Your task to perform on an android device: turn off improve location accuracy Image 0: 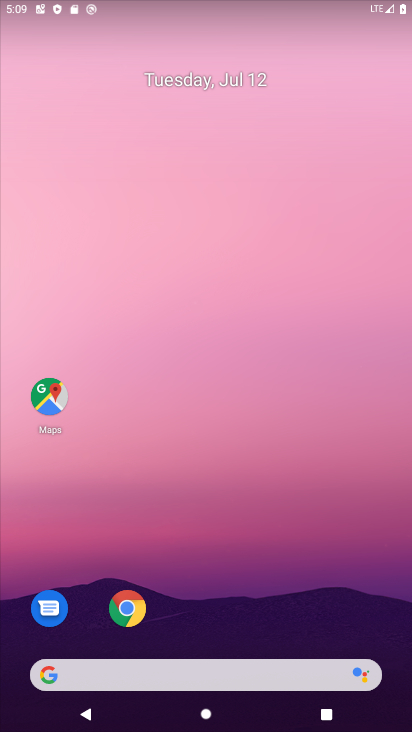
Step 0: drag from (199, 11) to (272, 597)
Your task to perform on an android device: turn off improve location accuracy Image 1: 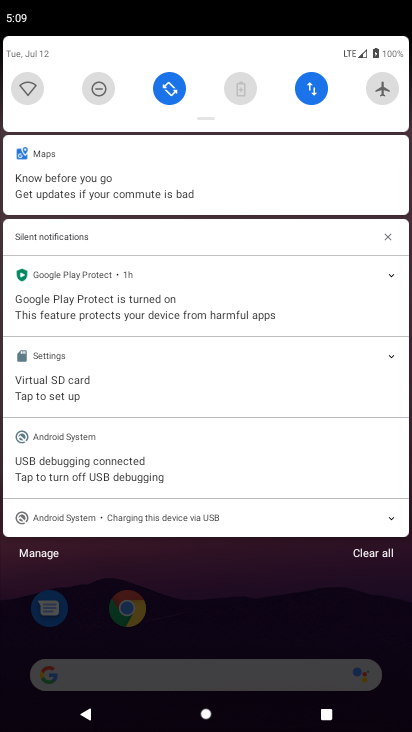
Step 1: drag from (188, 77) to (223, 699)
Your task to perform on an android device: turn off improve location accuracy Image 2: 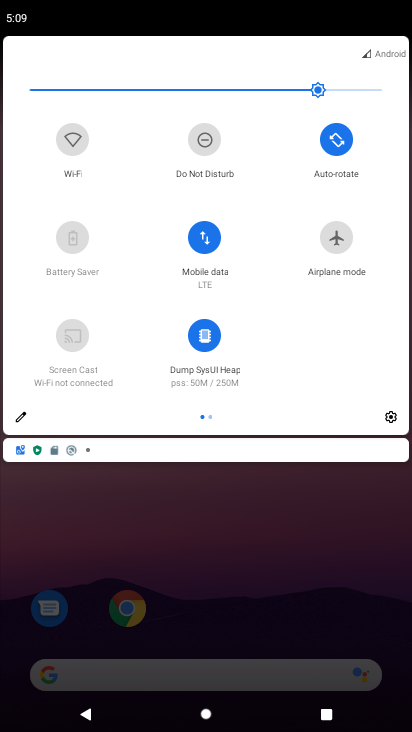
Step 2: click (392, 411)
Your task to perform on an android device: turn off improve location accuracy Image 3: 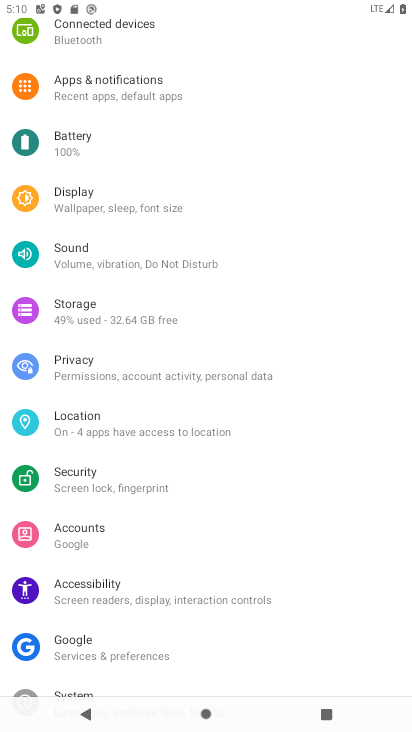
Step 3: click (59, 417)
Your task to perform on an android device: turn off improve location accuracy Image 4: 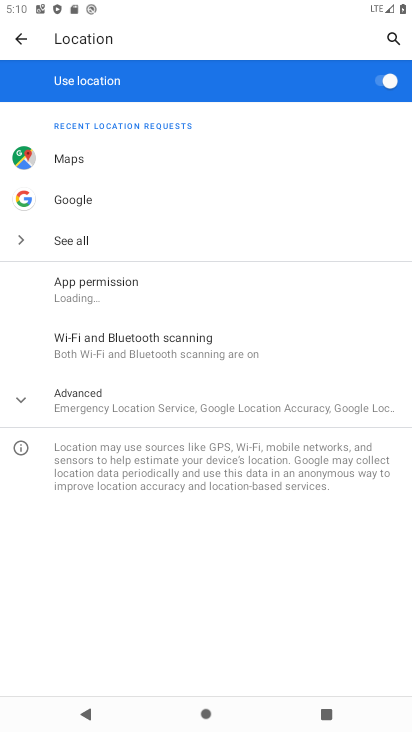
Step 4: click (88, 415)
Your task to perform on an android device: turn off improve location accuracy Image 5: 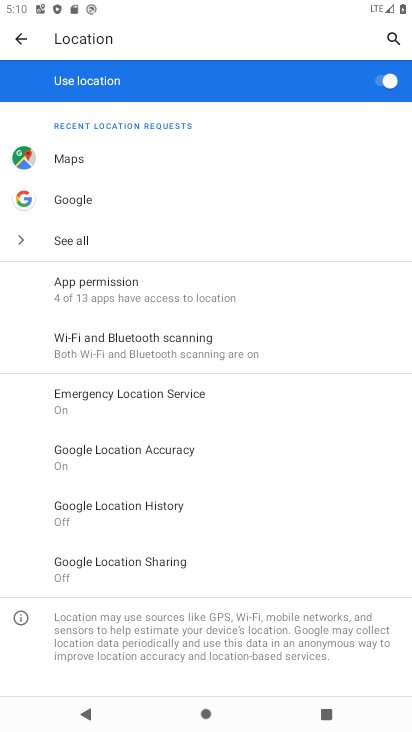
Step 5: click (164, 456)
Your task to perform on an android device: turn off improve location accuracy Image 6: 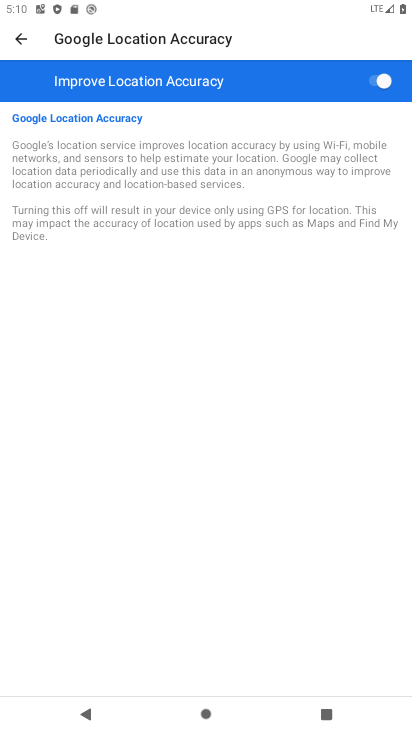
Step 6: click (371, 84)
Your task to perform on an android device: turn off improve location accuracy Image 7: 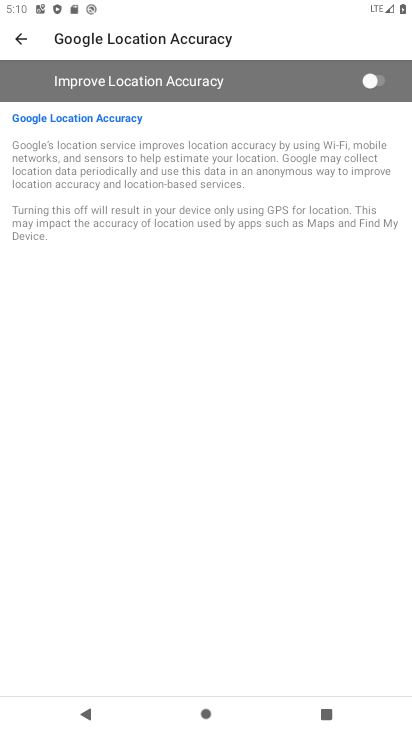
Step 7: task complete